Your task to perform on an android device: toggle location history Image 0: 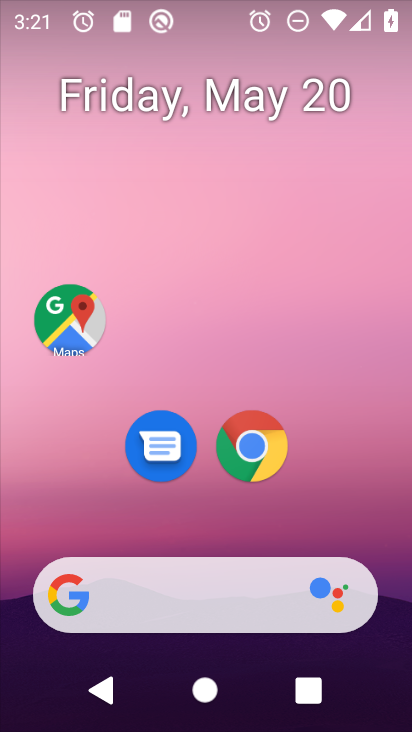
Step 0: click (65, 323)
Your task to perform on an android device: toggle location history Image 1: 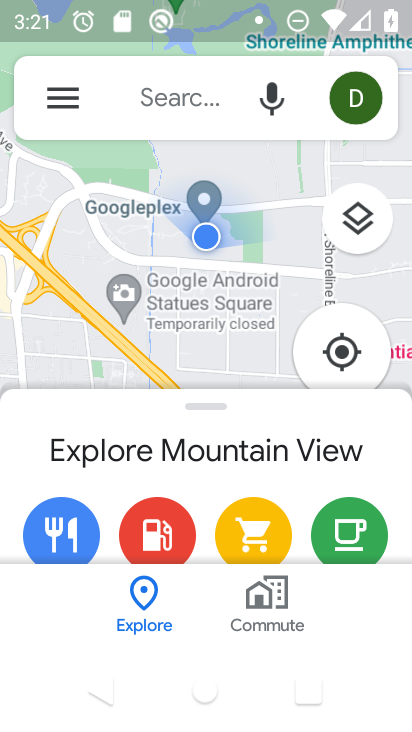
Step 1: click (51, 96)
Your task to perform on an android device: toggle location history Image 2: 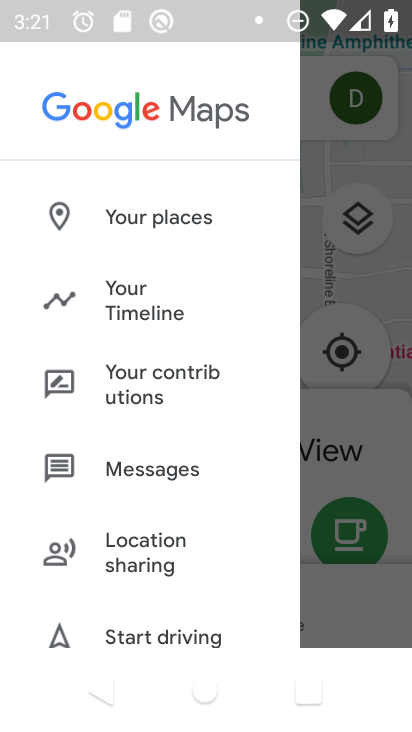
Step 2: click (117, 298)
Your task to perform on an android device: toggle location history Image 3: 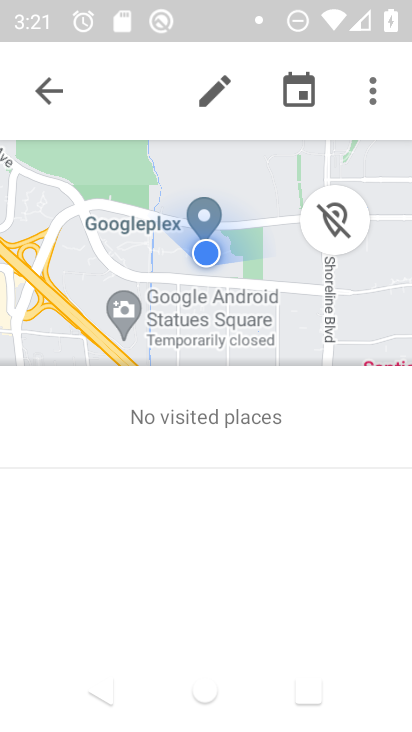
Step 3: click (376, 95)
Your task to perform on an android device: toggle location history Image 4: 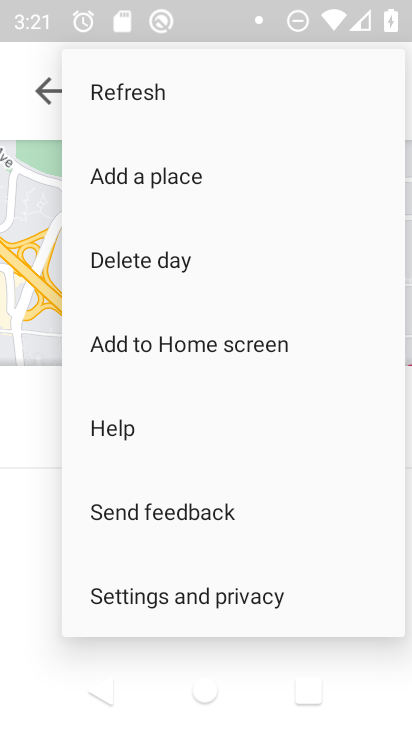
Step 4: click (211, 596)
Your task to perform on an android device: toggle location history Image 5: 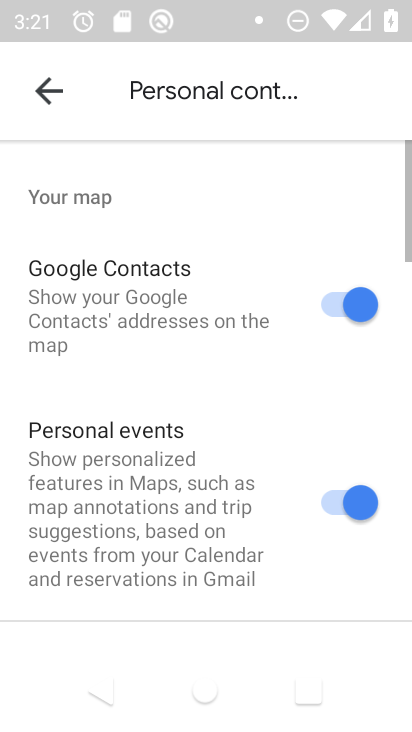
Step 5: drag from (154, 551) to (166, 25)
Your task to perform on an android device: toggle location history Image 6: 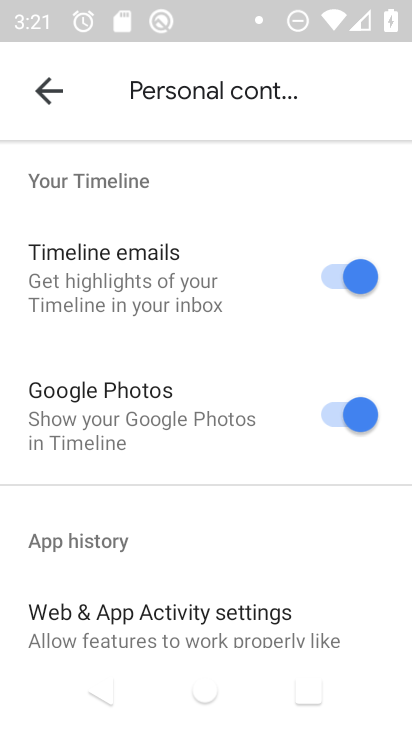
Step 6: drag from (131, 493) to (139, 81)
Your task to perform on an android device: toggle location history Image 7: 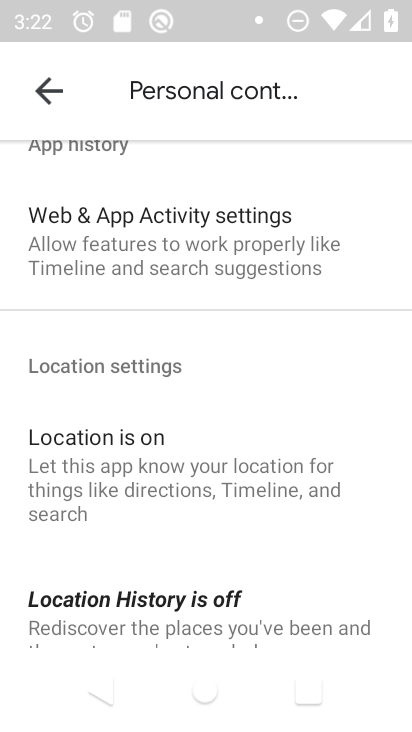
Step 7: drag from (133, 495) to (149, 207)
Your task to perform on an android device: toggle location history Image 8: 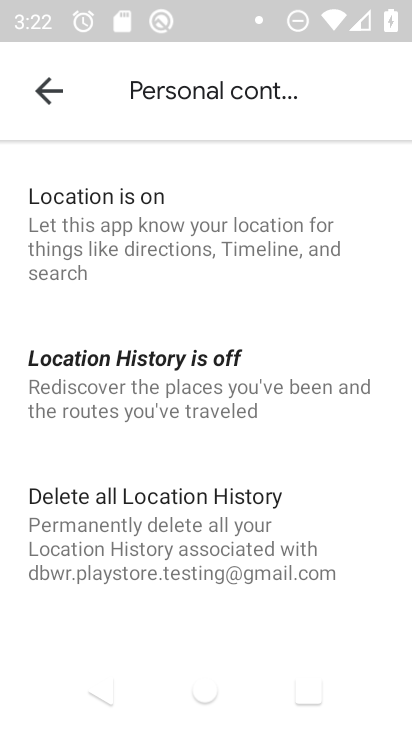
Step 8: click (125, 391)
Your task to perform on an android device: toggle location history Image 9: 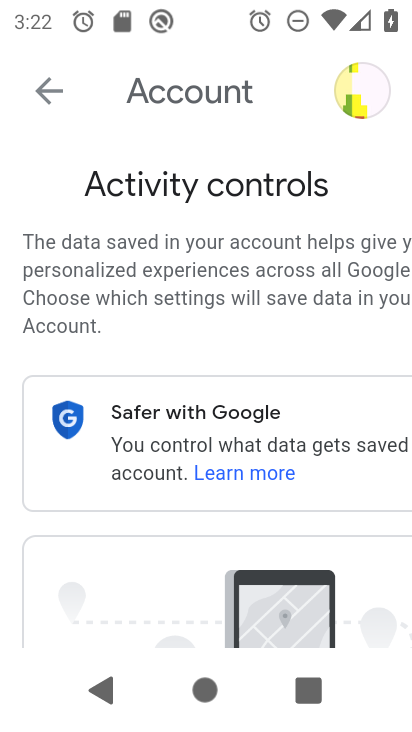
Step 9: drag from (163, 475) to (185, 102)
Your task to perform on an android device: toggle location history Image 10: 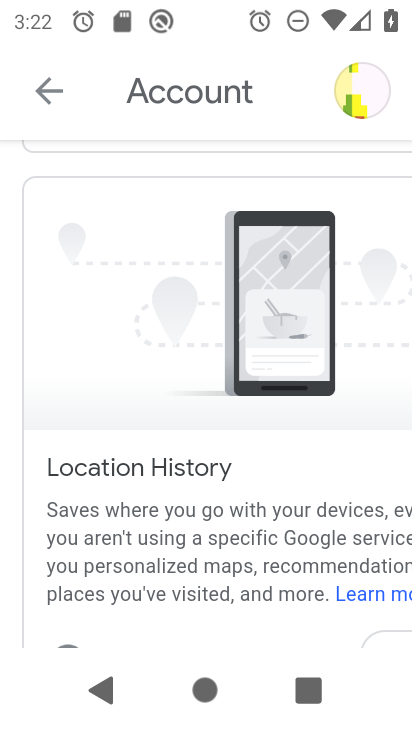
Step 10: drag from (161, 515) to (160, 129)
Your task to perform on an android device: toggle location history Image 11: 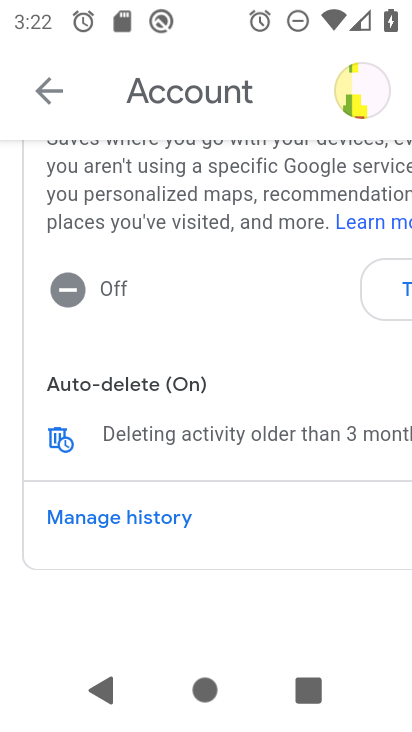
Step 11: click (386, 280)
Your task to perform on an android device: toggle location history Image 12: 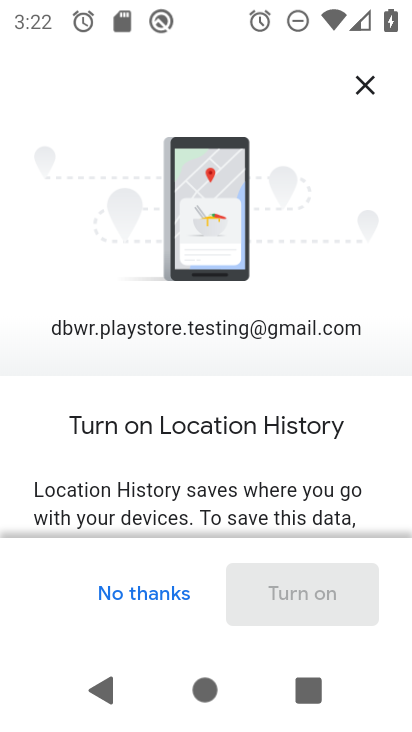
Step 12: drag from (203, 492) to (209, 35)
Your task to perform on an android device: toggle location history Image 13: 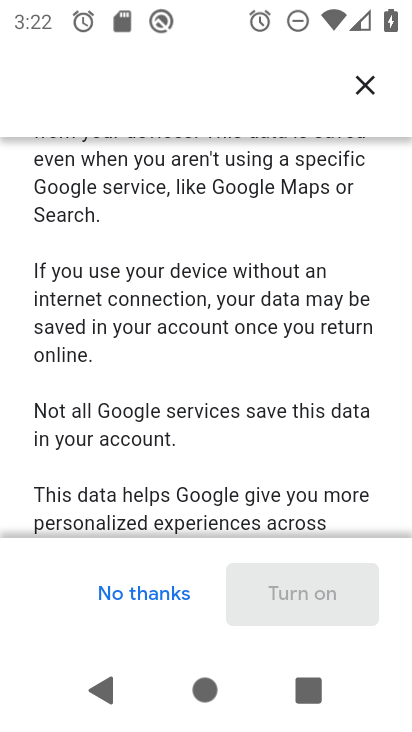
Step 13: drag from (181, 438) to (187, 24)
Your task to perform on an android device: toggle location history Image 14: 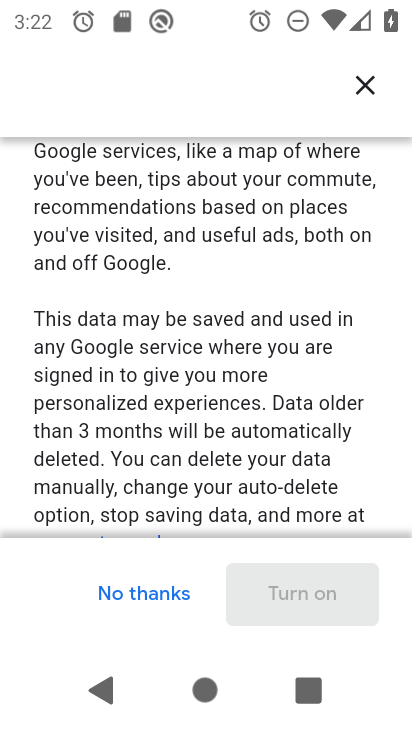
Step 14: drag from (164, 417) to (159, 57)
Your task to perform on an android device: toggle location history Image 15: 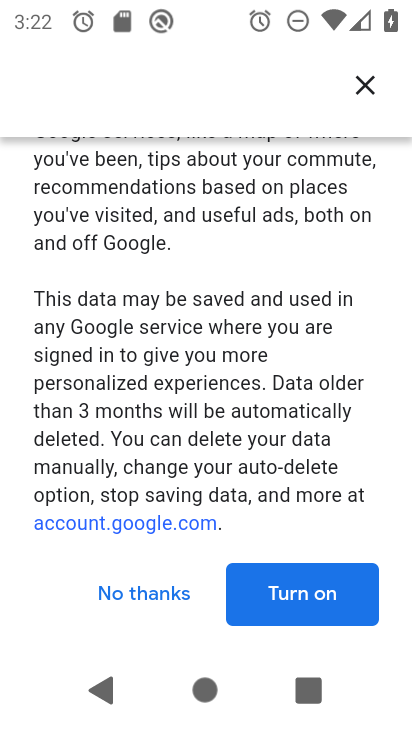
Step 15: click (295, 598)
Your task to perform on an android device: toggle location history Image 16: 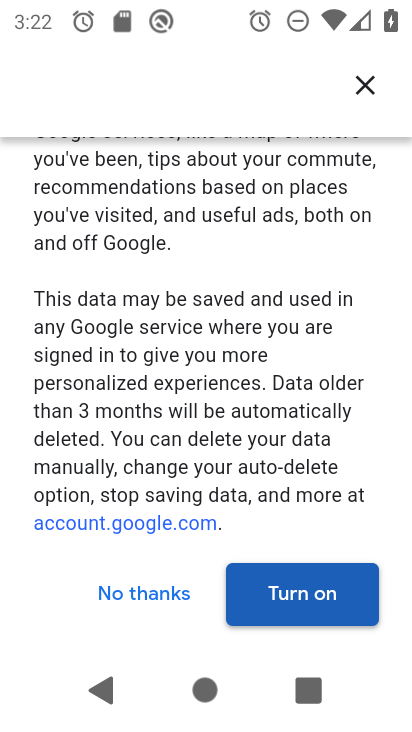
Step 16: click (315, 600)
Your task to perform on an android device: toggle location history Image 17: 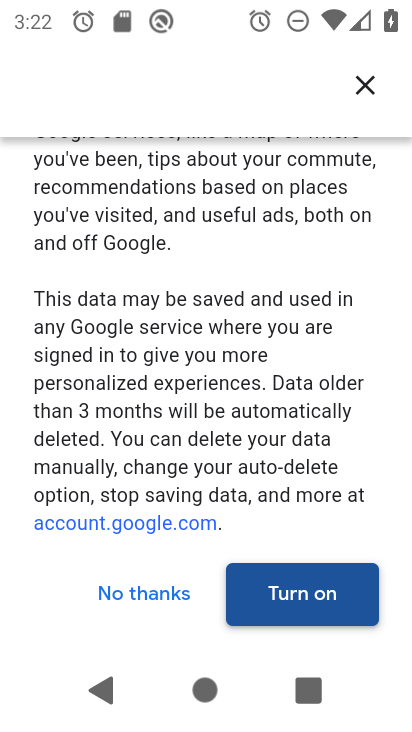
Step 17: drag from (330, 509) to (324, 353)
Your task to perform on an android device: toggle location history Image 18: 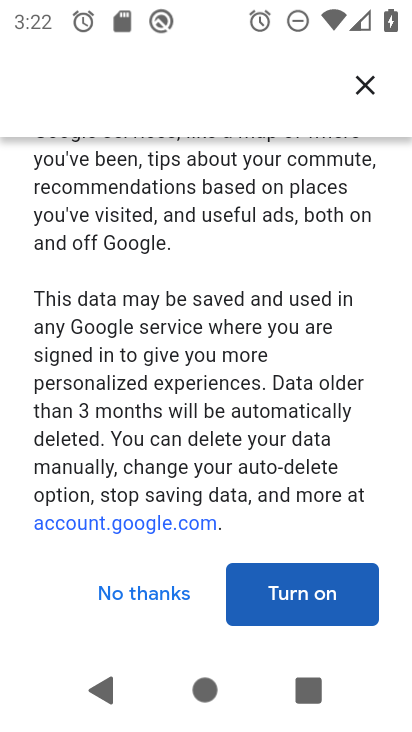
Step 18: click (315, 598)
Your task to perform on an android device: toggle location history Image 19: 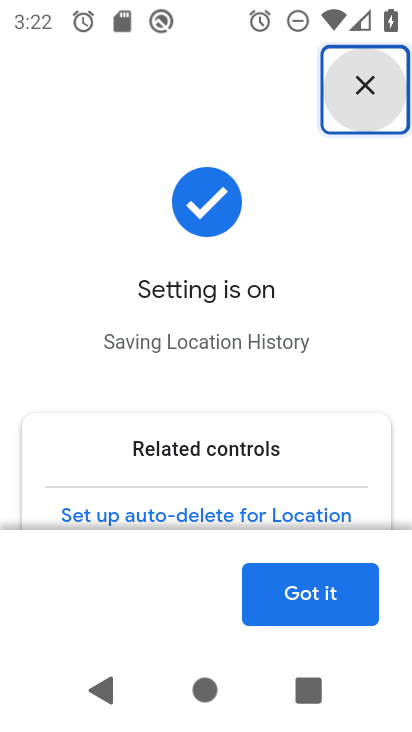
Step 19: click (315, 597)
Your task to perform on an android device: toggle location history Image 20: 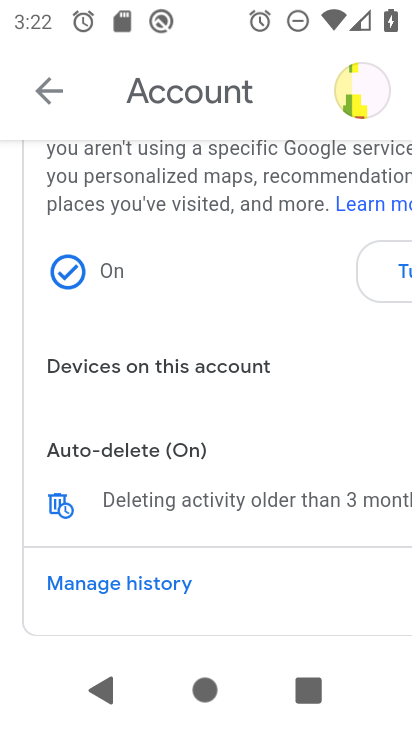
Step 20: task complete